Your task to perform on an android device: Check the weather Image 0: 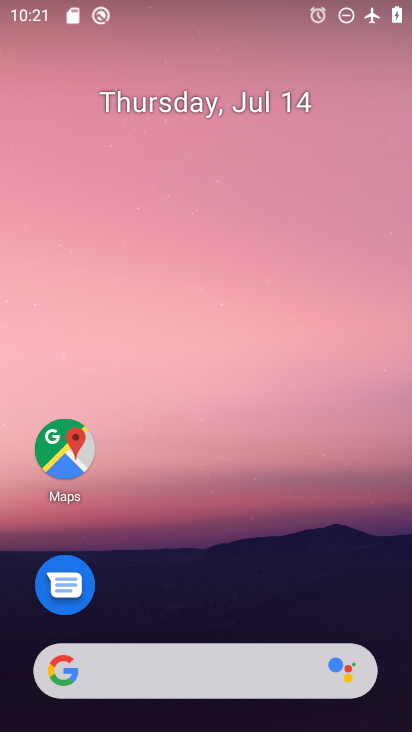
Step 0: click (167, 684)
Your task to perform on an android device: Check the weather Image 1: 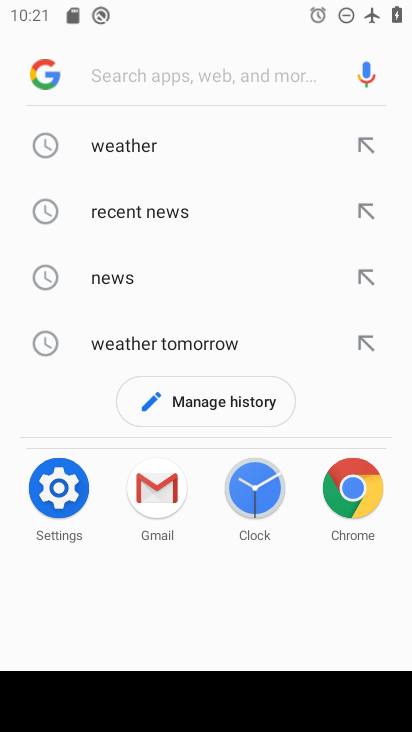
Step 1: click (128, 159)
Your task to perform on an android device: Check the weather Image 2: 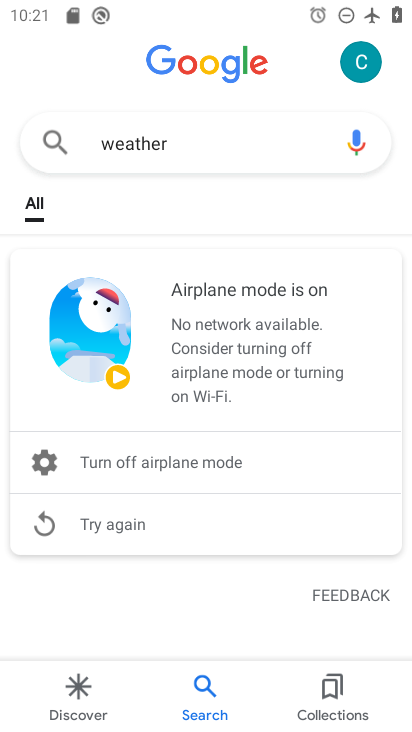
Step 2: task complete